Your task to perform on an android device: clear history in the chrome app Image 0: 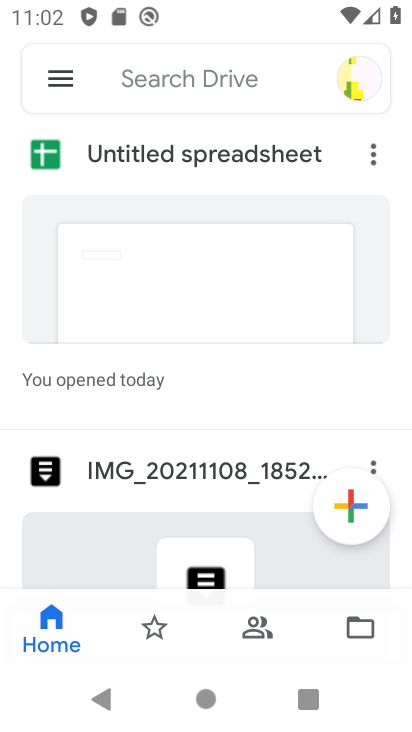
Step 0: press home button
Your task to perform on an android device: clear history in the chrome app Image 1: 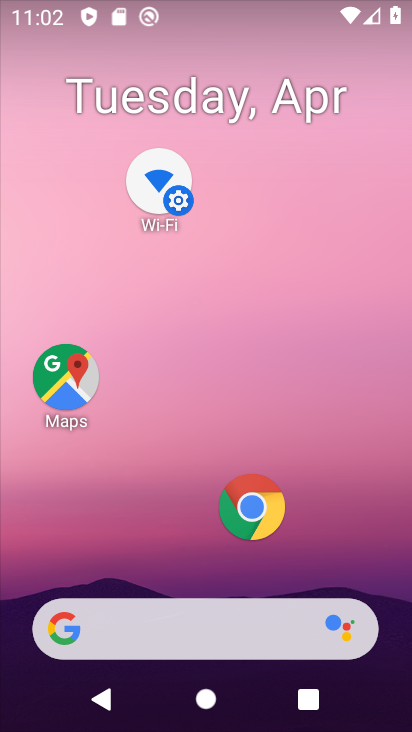
Step 1: click (248, 504)
Your task to perform on an android device: clear history in the chrome app Image 2: 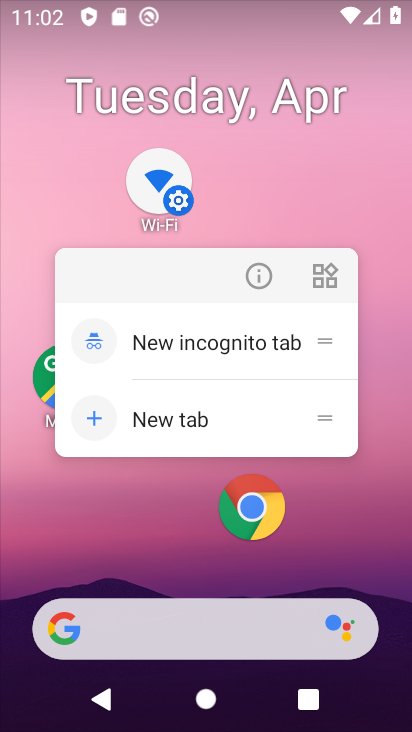
Step 2: click (257, 487)
Your task to perform on an android device: clear history in the chrome app Image 3: 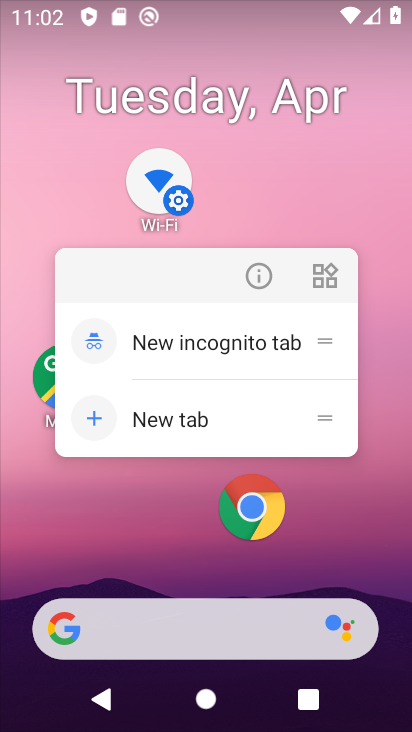
Step 3: click (257, 487)
Your task to perform on an android device: clear history in the chrome app Image 4: 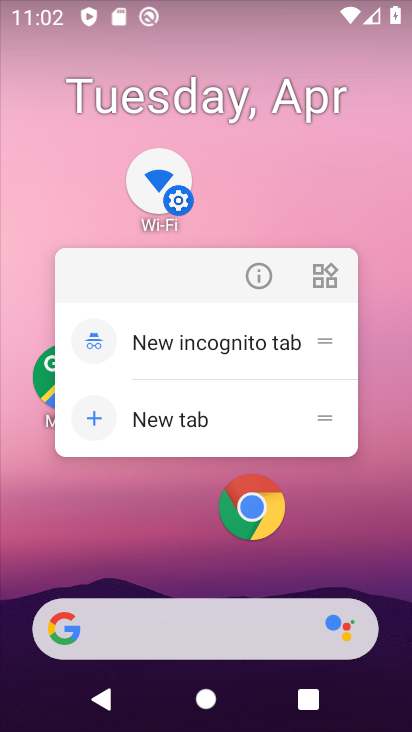
Step 4: click (255, 487)
Your task to perform on an android device: clear history in the chrome app Image 5: 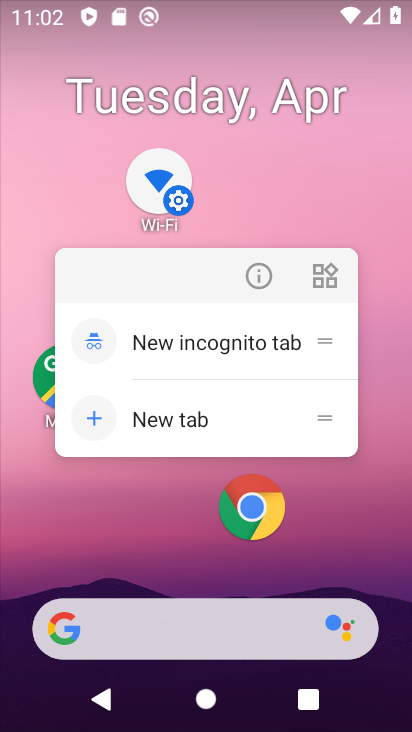
Step 5: click (250, 497)
Your task to perform on an android device: clear history in the chrome app Image 6: 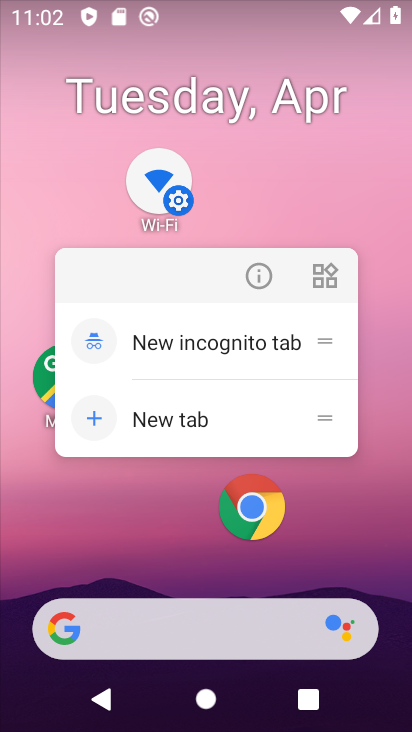
Step 6: click (250, 497)
Your task to perform on an android device: clear history in the chrome app Image 7: 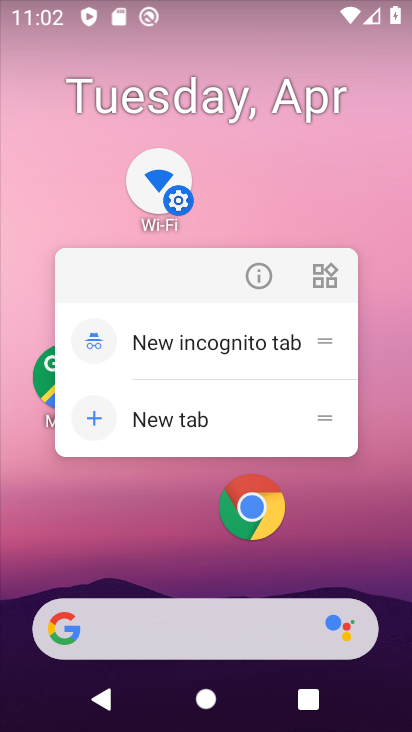
Step 7: click (250, 496)
Your task to perform on an android device: clear history in the chrome app Image 8: 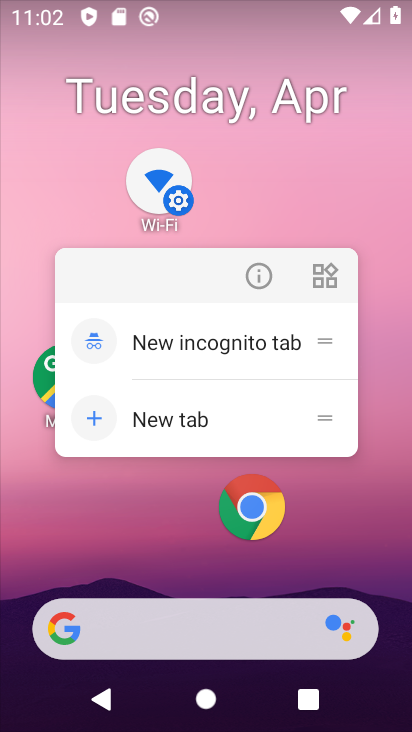
Step 8: click (251, 494)
Your task to perform on an android device: clear history in the chrome app Image 9: 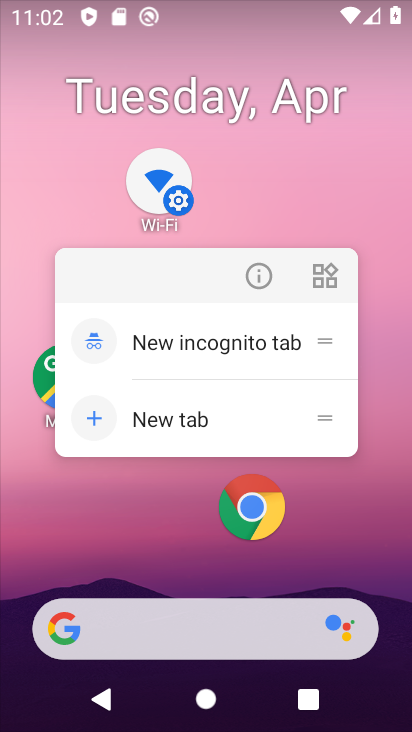
Step 9: click (243, 510)
Your task to perform on an android device: clear history in the chrome app Image 10: 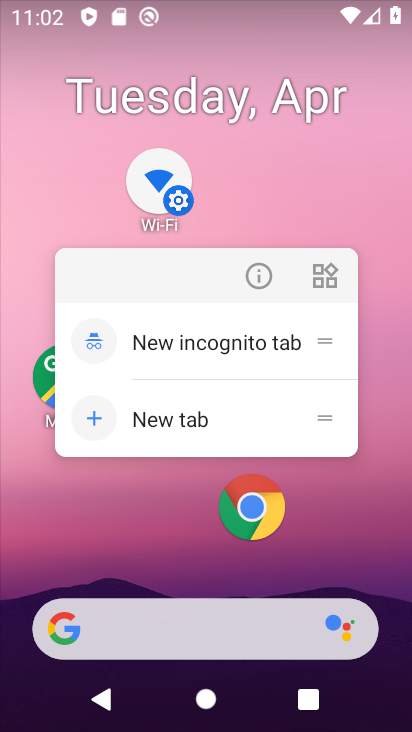
Step 10: click (242, 509)
Your task to perform on an android device: clear history in the chrome app Image 11: 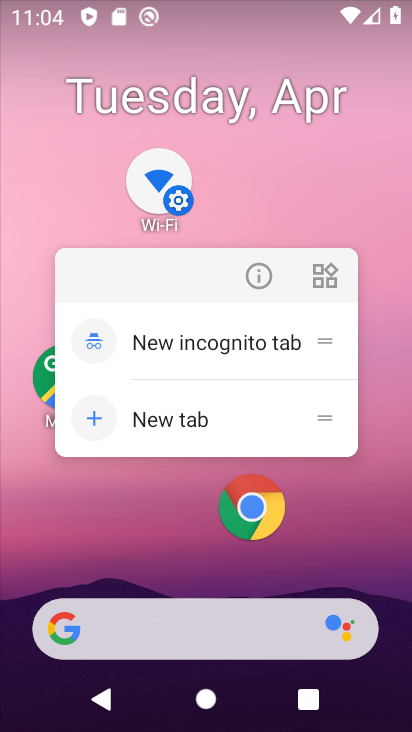
Step 11: click (238, 501)
Your task to perform on an android device: clear history in the chrome app Image 12: 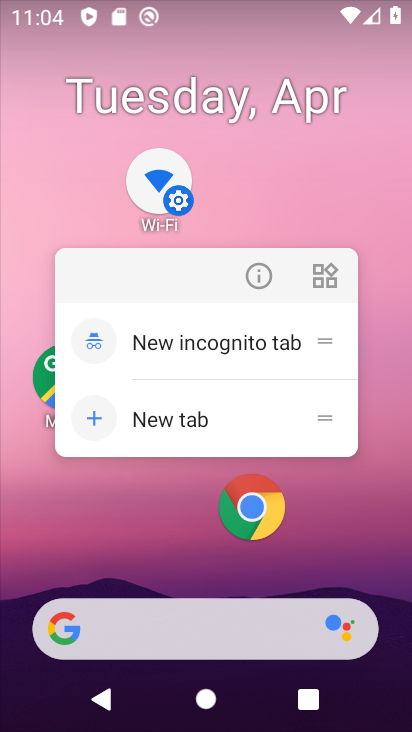
Step 12: click (239, 501)
Your task to perform on an android device: clear history in the chrome app Image 13: 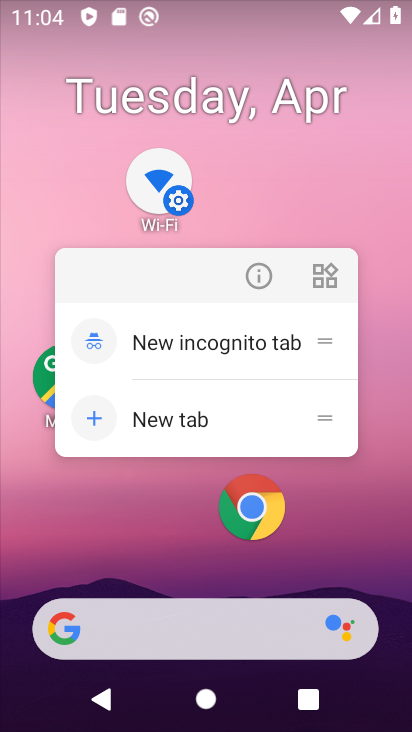
Step 13: click (250, 495)
Your task to perform on an android device: clear history in the chrome app Image 14: 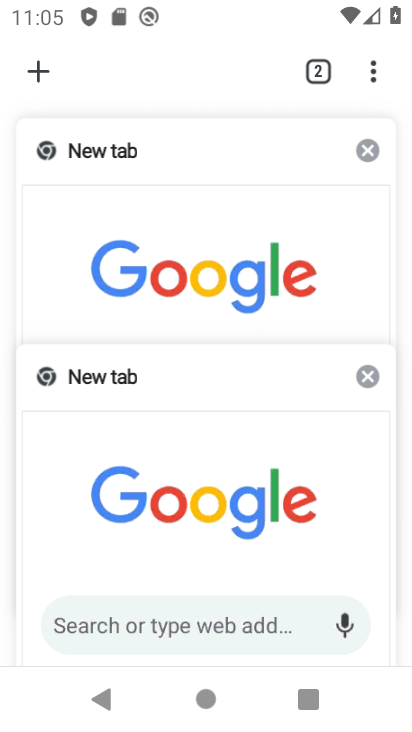
Step 14: click (371, 65)
Your task to perform on an android device: clear history in the chrome app Image 15: 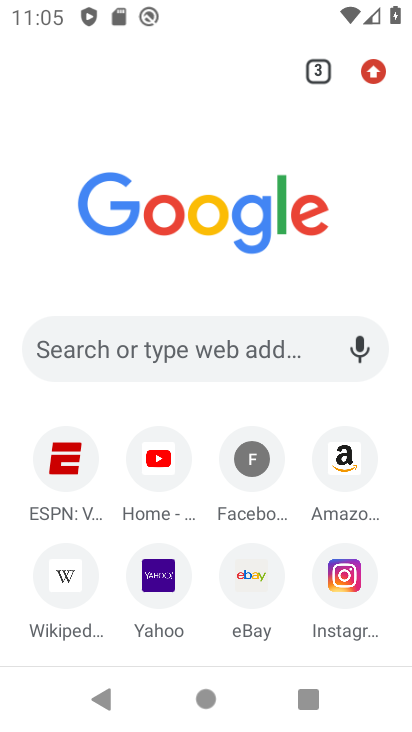
Step 15: click (324, 57)
Your task to perform on an android device: clear history in the chrome app Image 16: 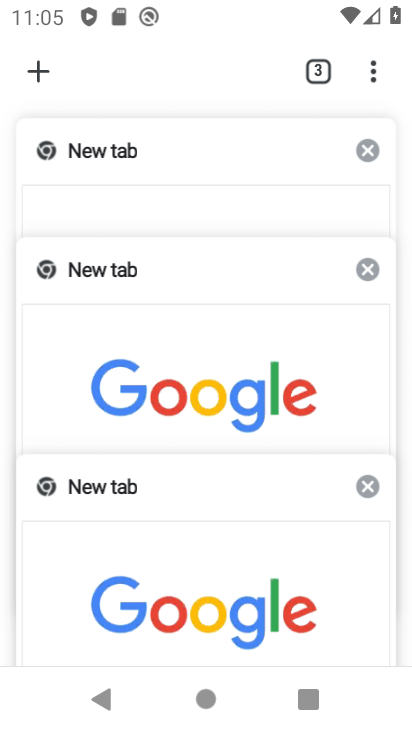
Step 16: click (369, 146)
Your task to perform on an android device: clear history in the chrome app Image 17: 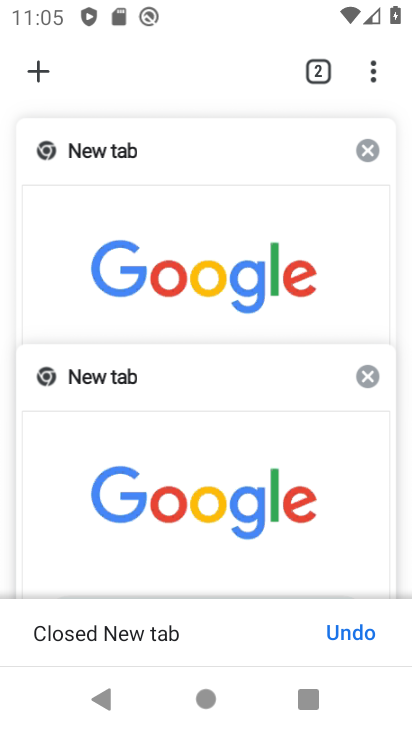
Step 17: click (371, 63)
Your task to perform on an android device: clear history in the chrome app Image 18: 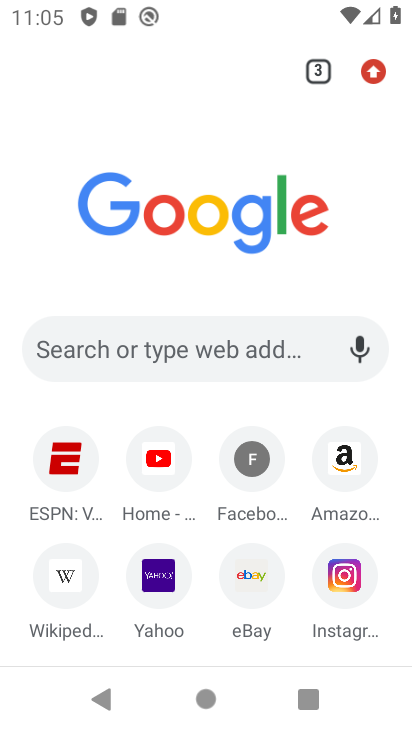
Step 18: click (262, 66)
Your task to perform on an android device: clear history in the chrome app Image 19: 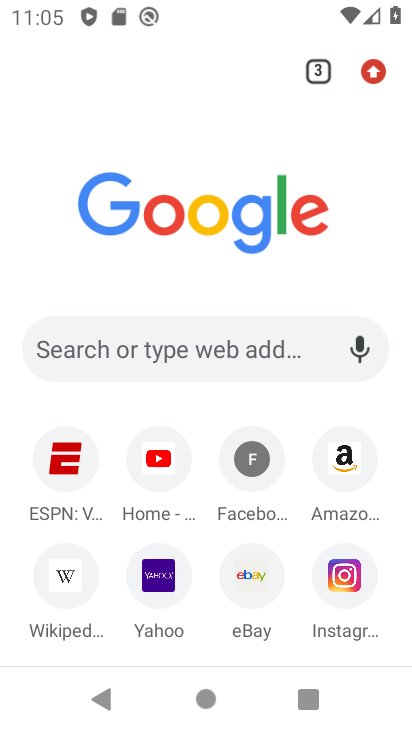
Step 19: click (297, 67)
Your task to perform on an android device: clear history in the chrome app Image 20: 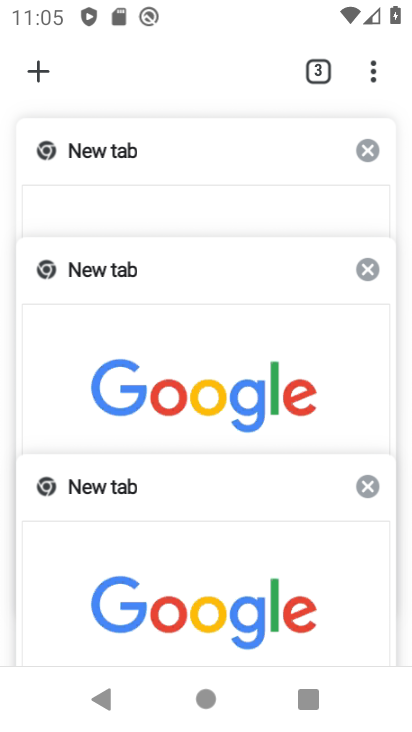
Step 20: click (372, 143)
Your task to perform on an android device: clear history in the chrome app Image 21: 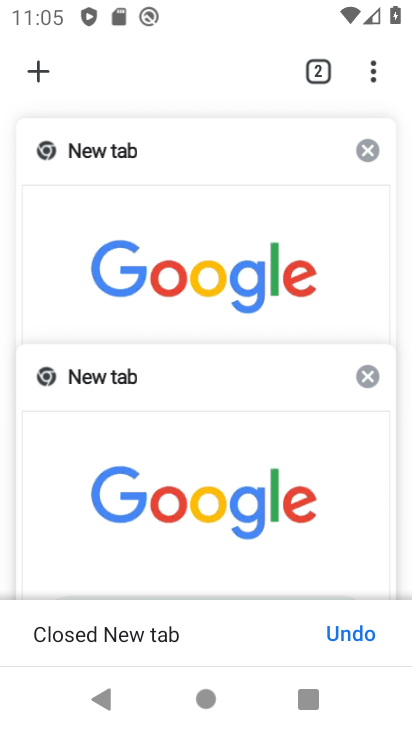
Step 21: click (373, 69)
Your task to perform on an android device: clear history in the chrome app Image 22: 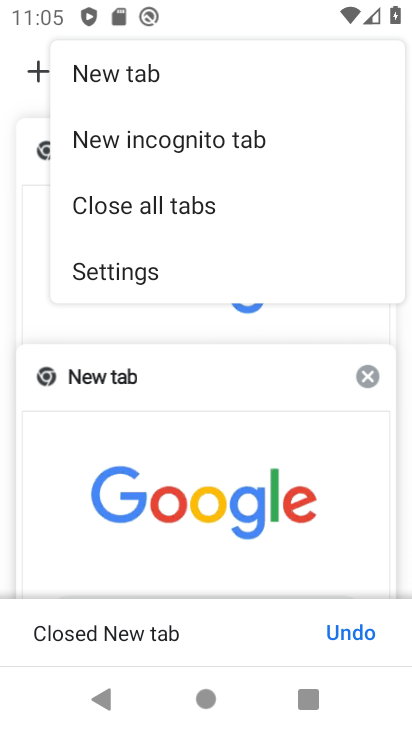
Step 22: click (208, 278)
Your task to perform on an android device: clear history in the chrome app Image 23: 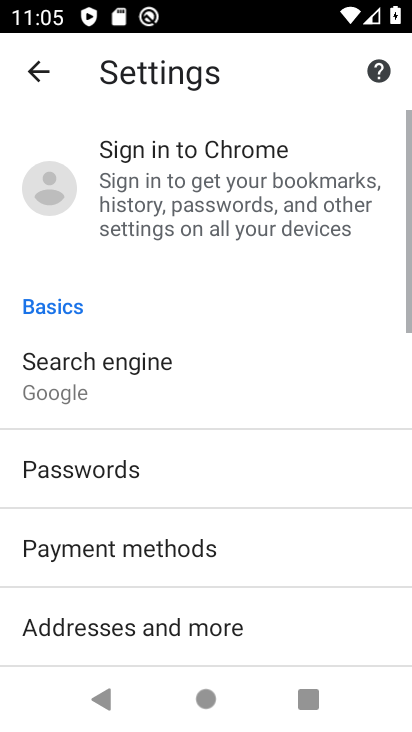
Step 23: click (184, 289)
Your task to perform on an android device: clear history in the chrome app Image 24: 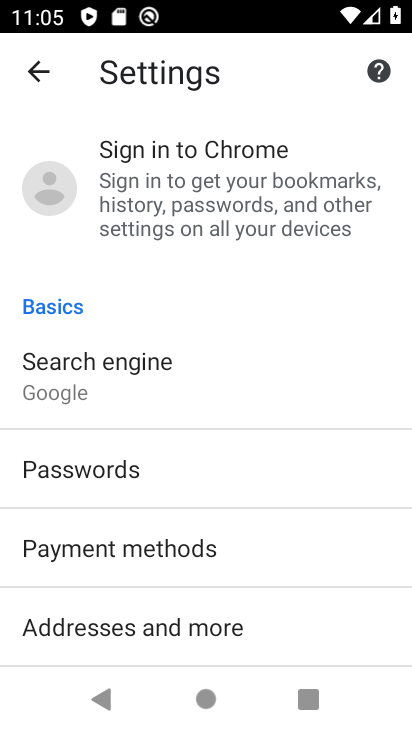
Step 24: drag from (146, 531) to (249, 233)
Your task to perform on an android device: clear history in the chrome app Image 25: 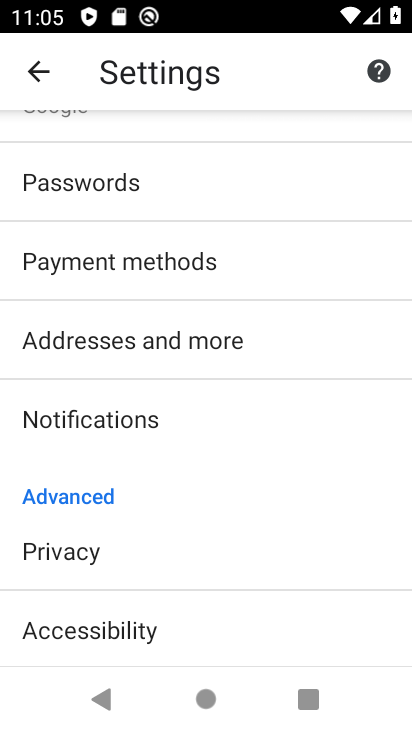
Step 25: click (105, 552)
Your task to perform on an android device: clear history in the chrome app Image 26: 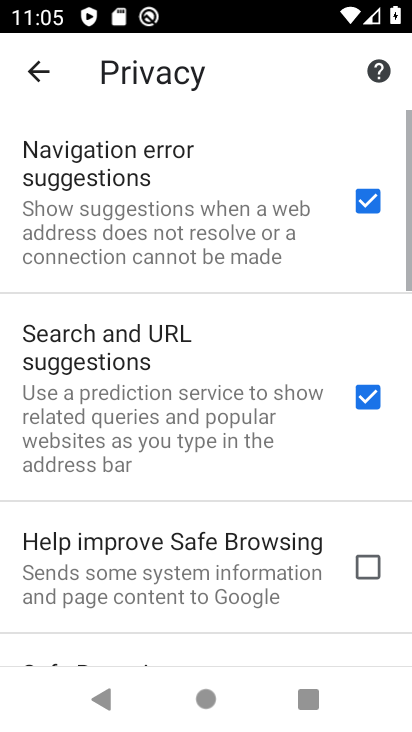
Step 26: drag from (107, 551) to (179, 231)
Your task to perform on an android device: clear history in the chrome app Image 27: 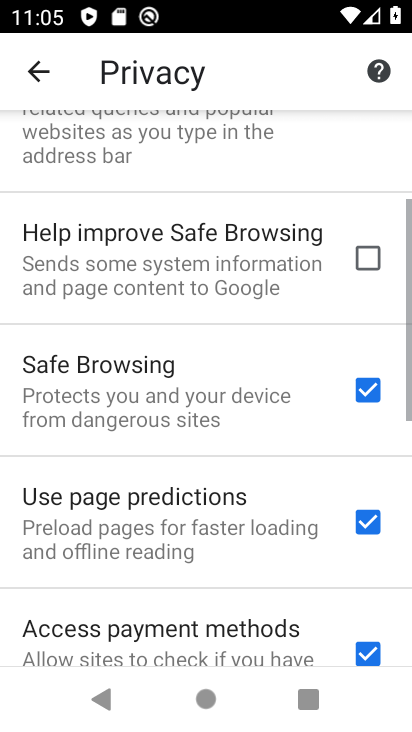
Step 27: drag from (153, 580) to (254, 239)
Your task to perform on an android device: clear history in the chrome app Image 28: 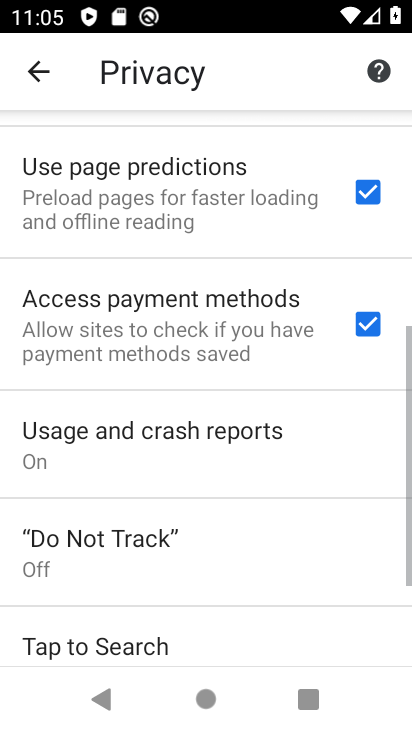
Step 28: drag from (126, 597) to (247, 204)
Your task to perform on an android device: clear history in the chrome app Image 29: 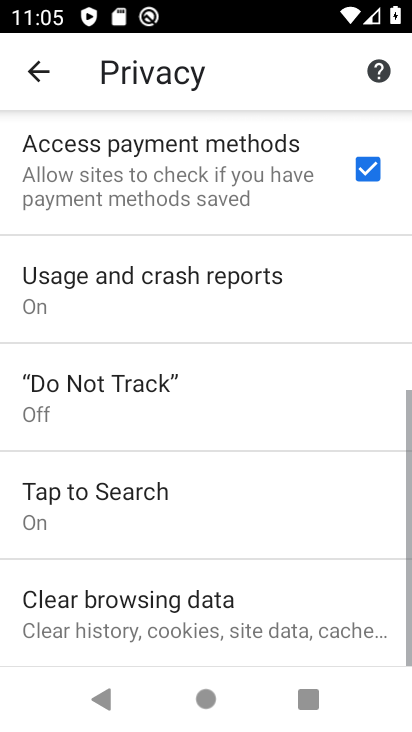
Step 29: click (133, 592)
Your task to perform on an android device: clear history in the chrome app Image 30: 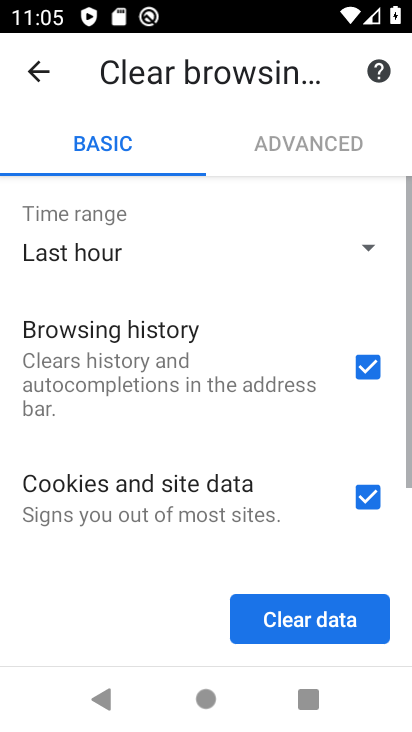
Step 30: click (296, 628)
Your task to perform on an android device: clear history in the chrome app Image 31: 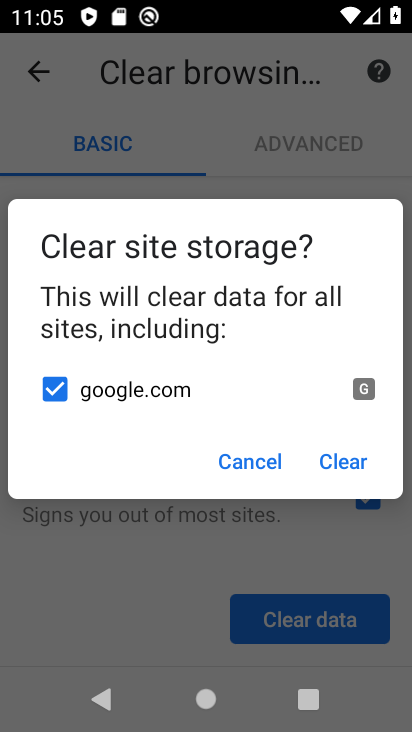
Step 31: click (350, 465)
Your task to perform on an android device: clear history in the chrome app Image 32: 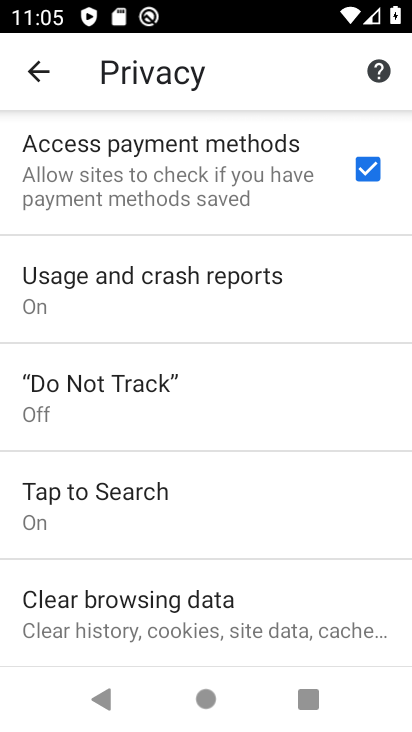
Step 32: task complete